Your task to perform on an android device: toggle data saver in the chrome app Image 0: 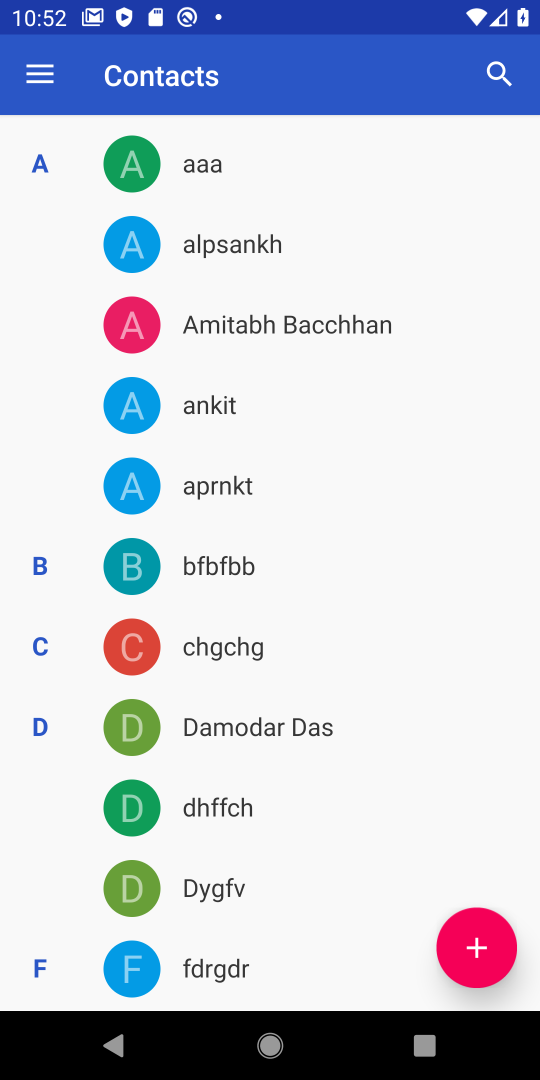
Step 0: click (264, 1049)
Your task to perform on an android device: toggle data saver in the chrome app Image 1: 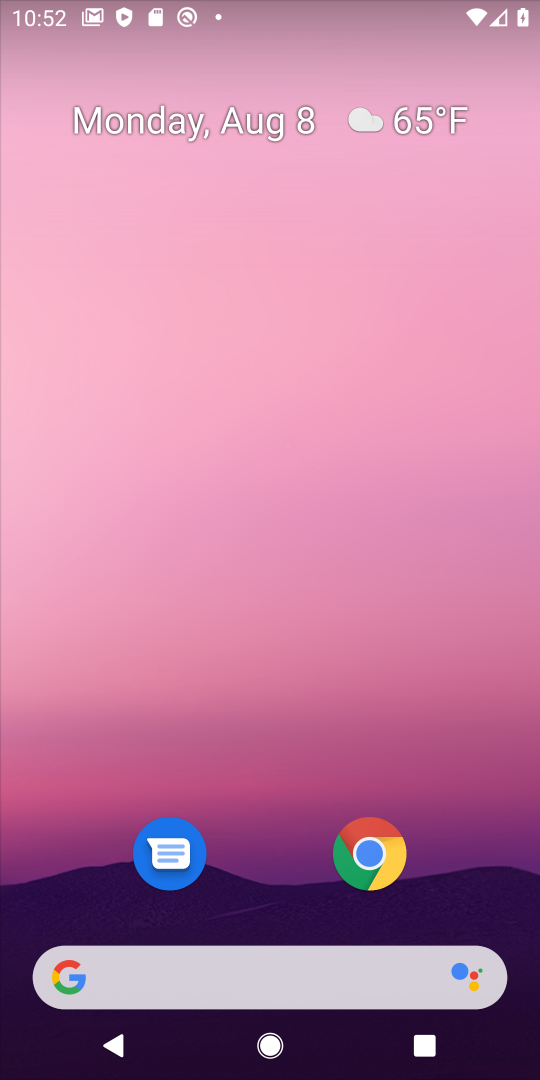
Step 1: click (351, 861)
Your task to perform on an android device: toggle data saver in the chrome app Image 2: 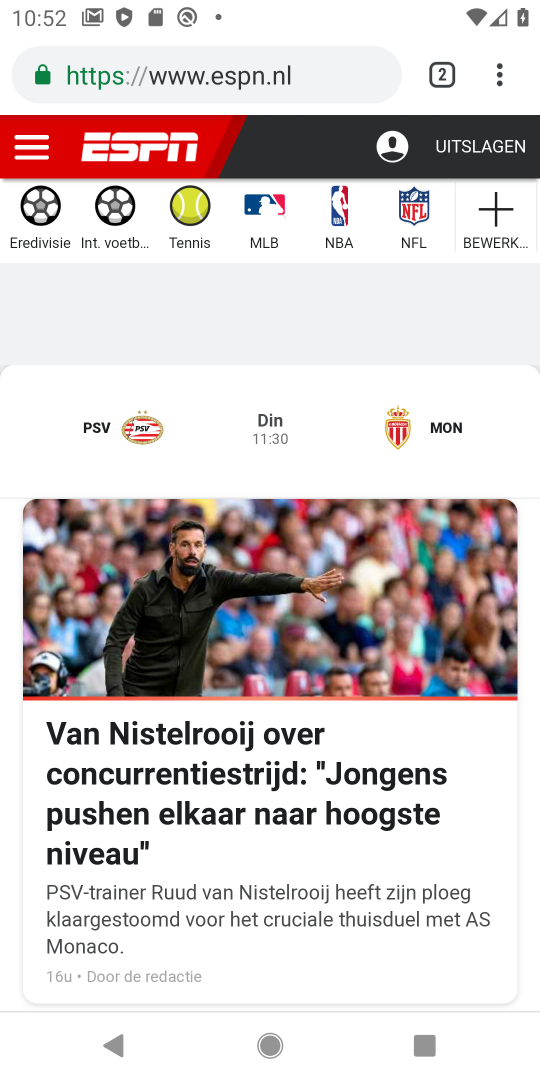
Step 2: click (500, 61)
Your task to perform on an android device: toggle data saver in the chrome app Image 3: 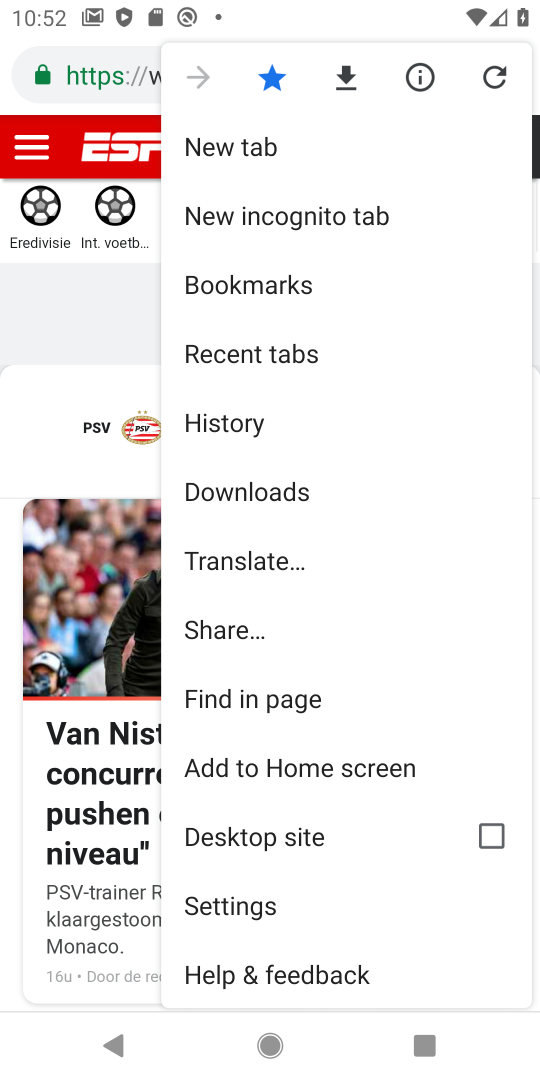
Step 3: click (226, 905)
Your task to perform on an android device: toggle data saver in the chrome app Image 4: 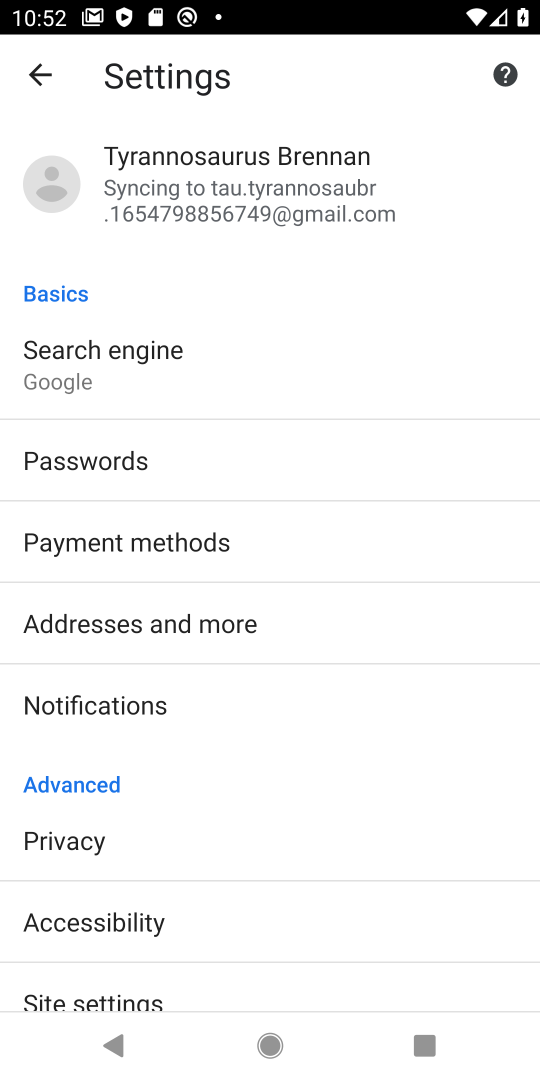
Step 4: drag from (243, 763) to (155, 358)
Your task to perform on an android device: toggle data saver in the chrome app Image 5: 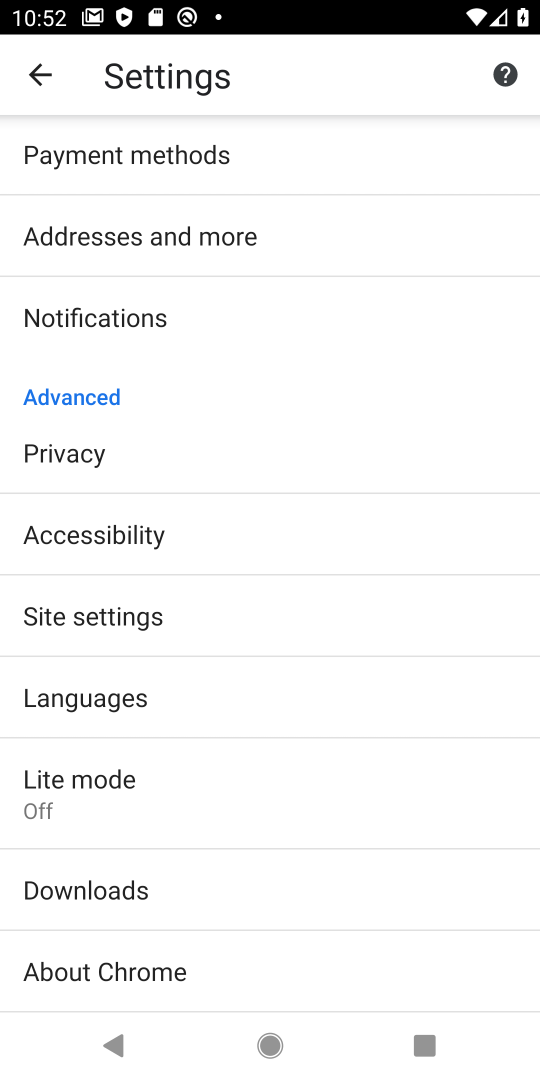
Step 5: click (134, 788)
Your task to perform on an android device: toggle data saver in the chrome app Image 6: 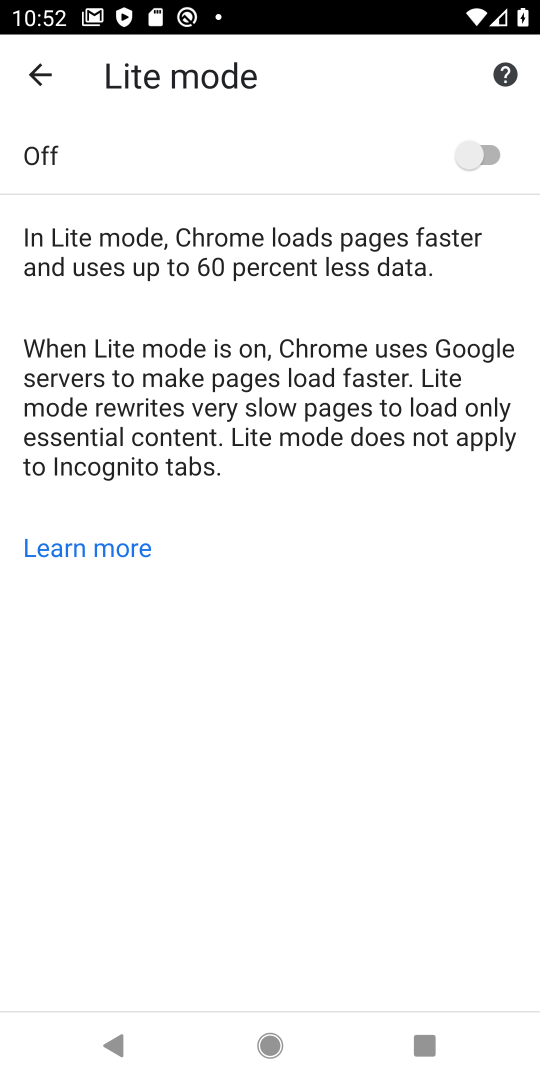
Step 6: click (478, 150)
Your task to perform on an android device: toggle data saver in the chrome app Image 7: 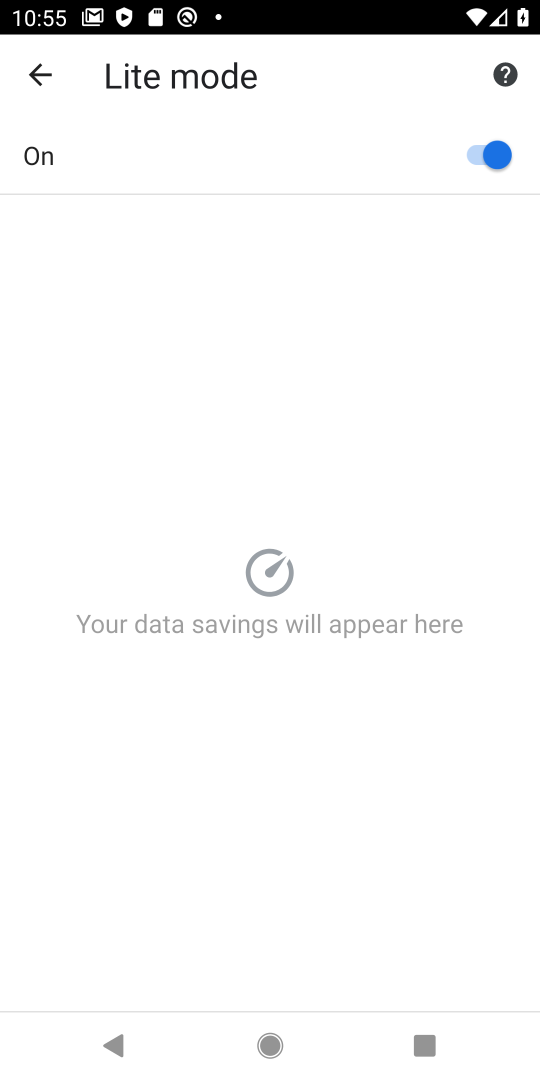
Step 7: task complete